Your task to perform on an android device: Open the Play Movies app and select the watchlist tab. Image 0: 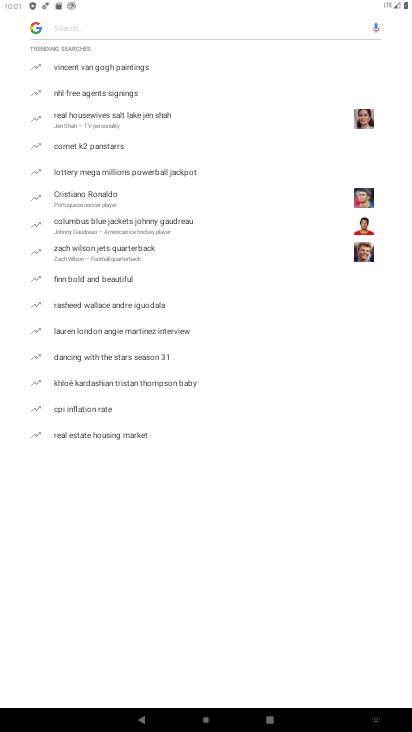
Step 0: press home button
Your task to perform on an android device: Open the Play Movies app and select the watchlist tab. Image 1: 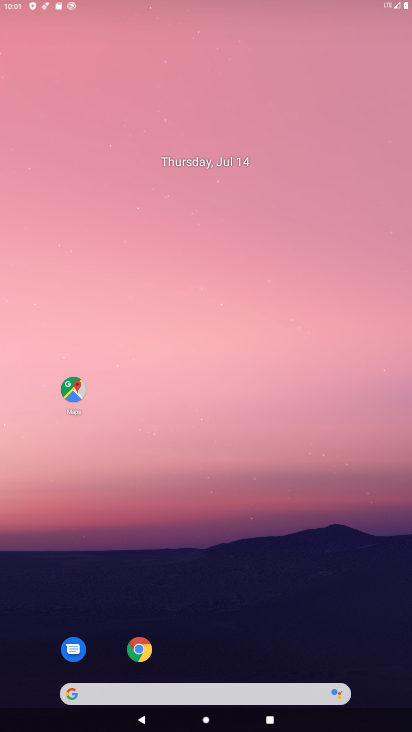
Step 1: drag from (234, 649) to (233, 109)
Your task to perform on an android device: Open the Play Movies app and select the watchlist tab. Image 2: 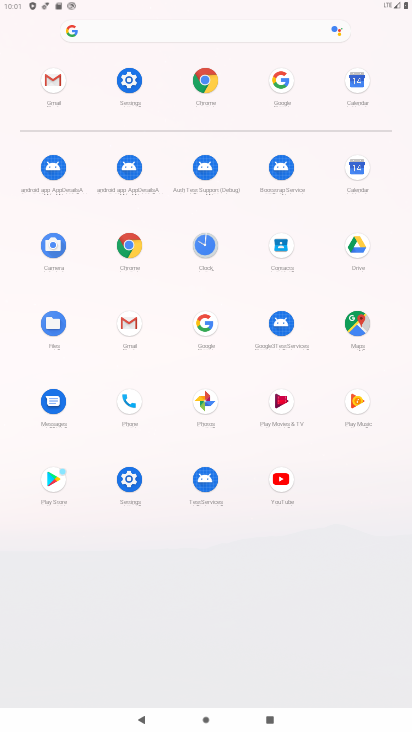
Step 2: click (275, 402)
Your task to perform on an android device: Open the Play Movies app and select the watchlist tab. Image 3: 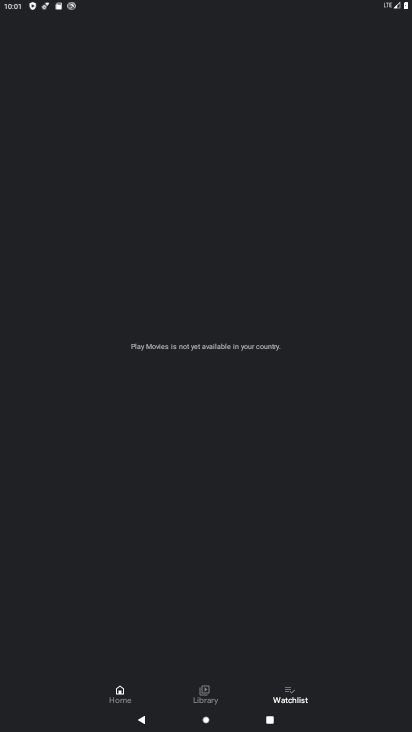
Step 3: click (288, 682)
Your task to perform on an android device: Open the Play Movies app and select the watchlist tab. Image 4: 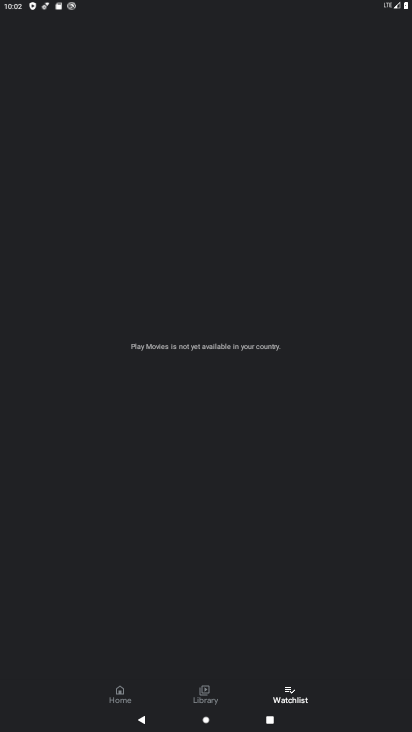
Step 4: task complete